Your task to perform on an android device: turn on javascript in the chrome app Image 0: 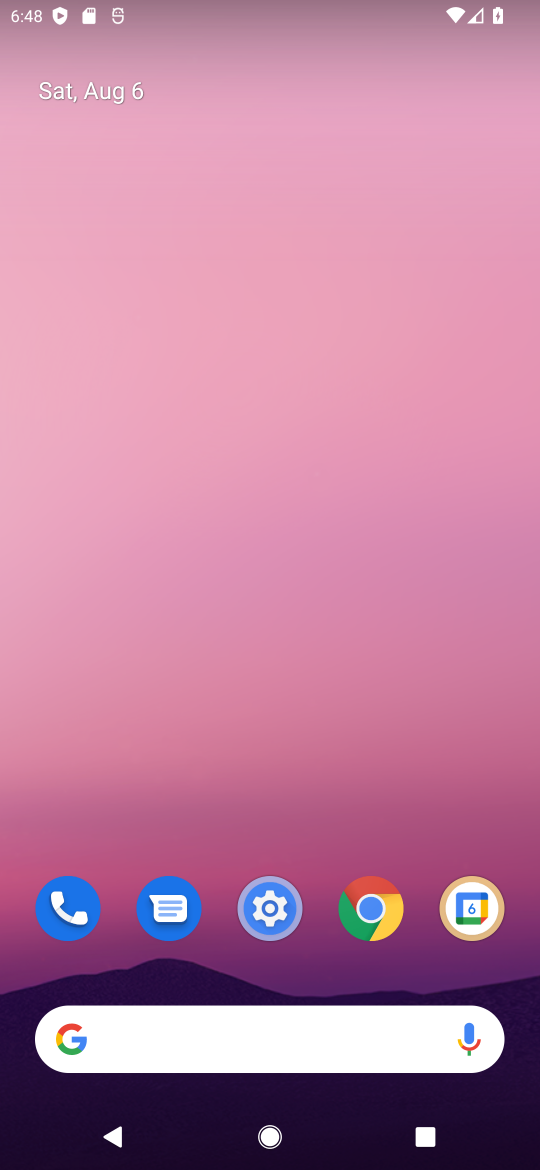
Step 0: click (369, 916)
Your task to perform on an android device: turn on javascript in the chrome app Image 1: 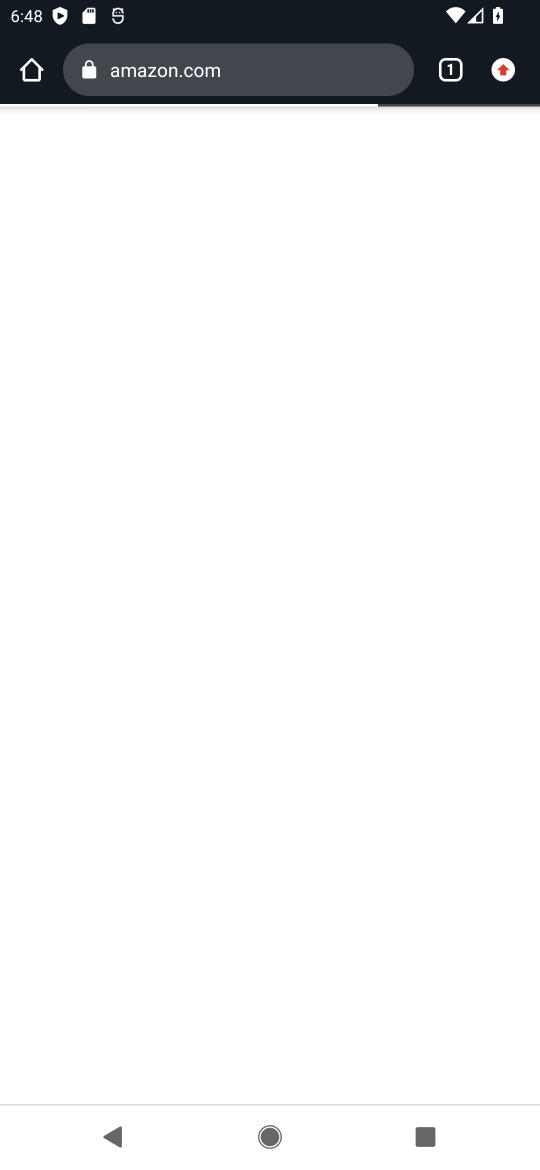
Step 1: click (506, 64)
Your task to perform on an android device: turn on javascript in the chrome app Image 2: 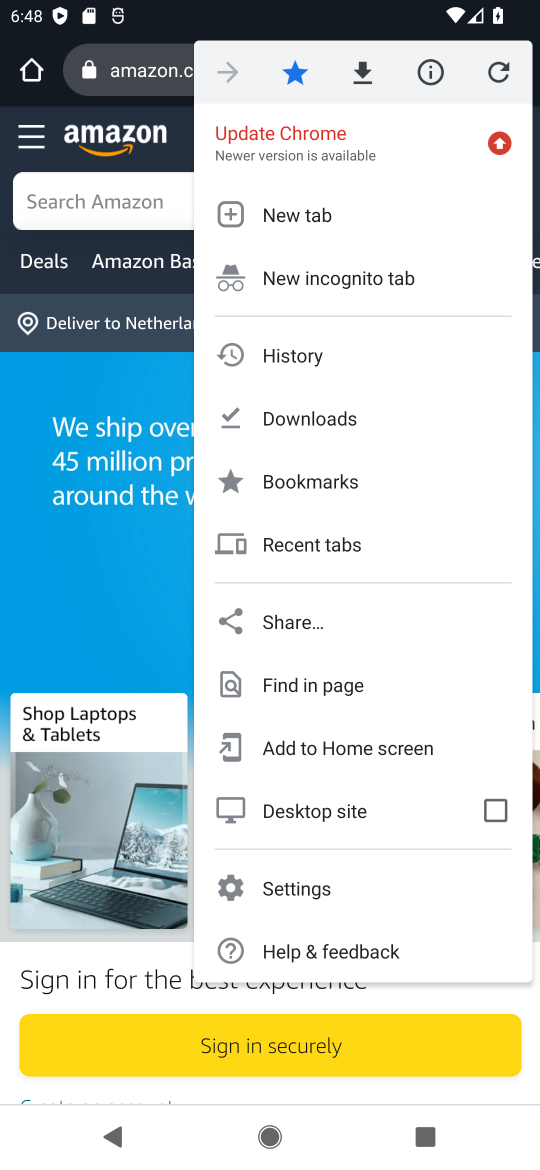
Step 2: click (307, 880)
Your task to perform on an android device: turn on javascript in the chrome app Image 3: 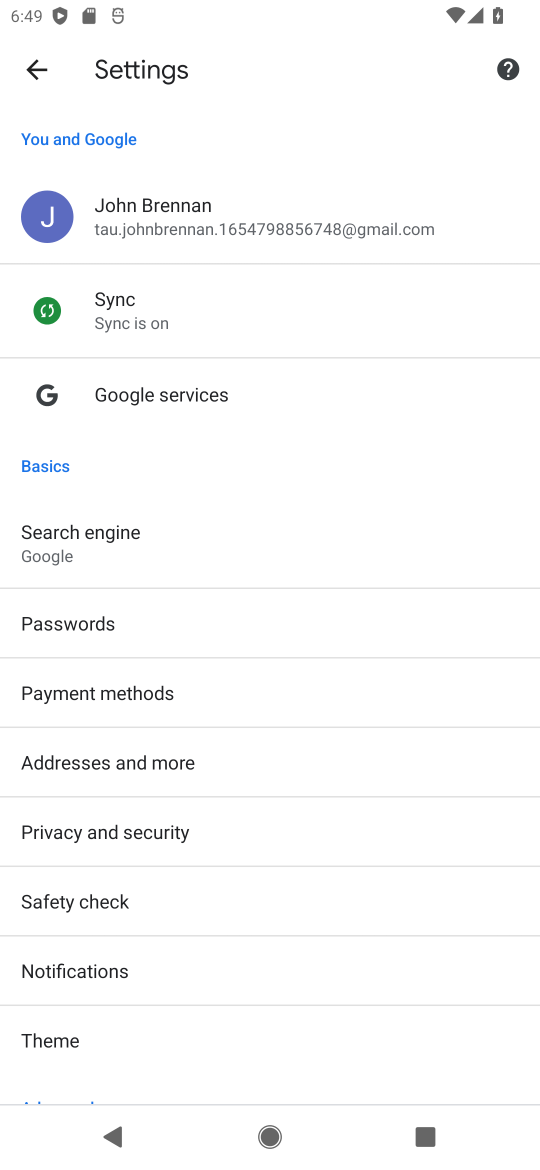
Step 3: drag from (258, 946) to (193, 625)
Your task to perform on an android device: turn on javascript in the chrome app Image 4: 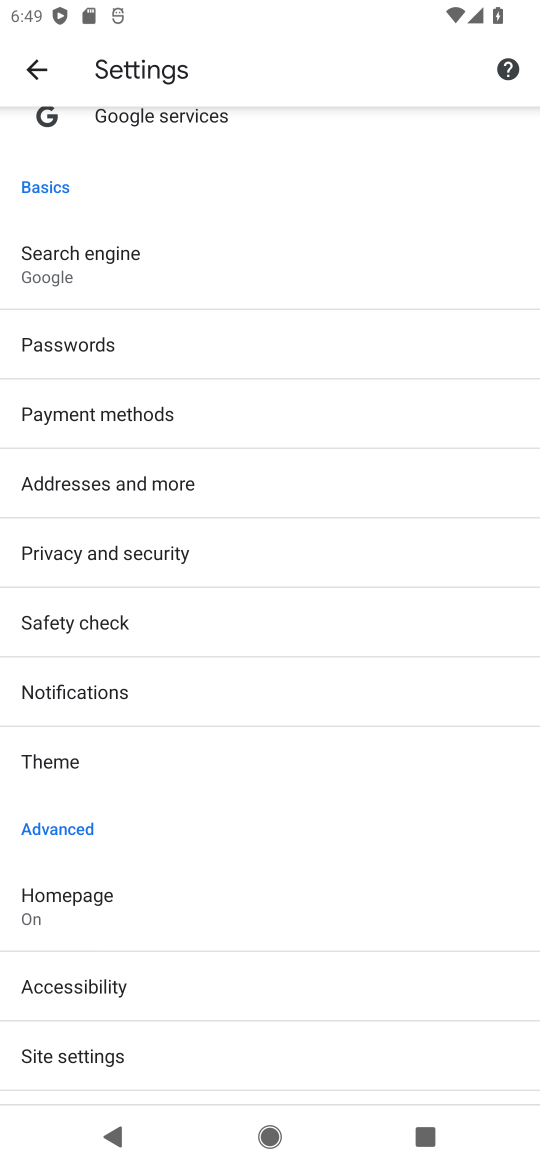
Step 4: drag from (261, 978) to (204, 629)
Your task to perform on an android device: turn on javascript in the chrome app Image 5: 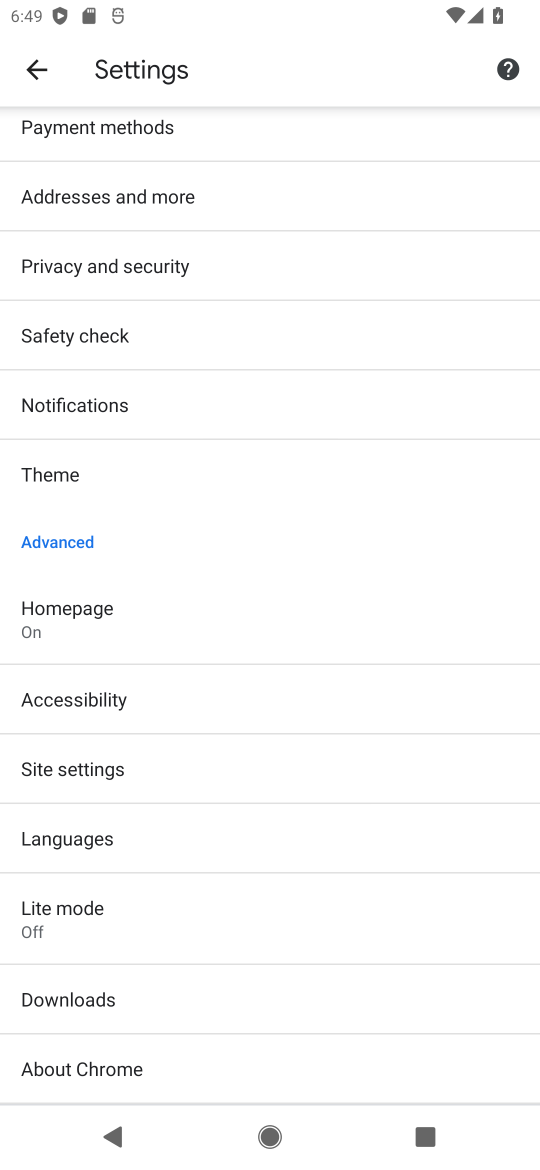
Step 5: click (133, 757)
Your task to perform on an android device: turn on javascript in the chrome app Image 6: 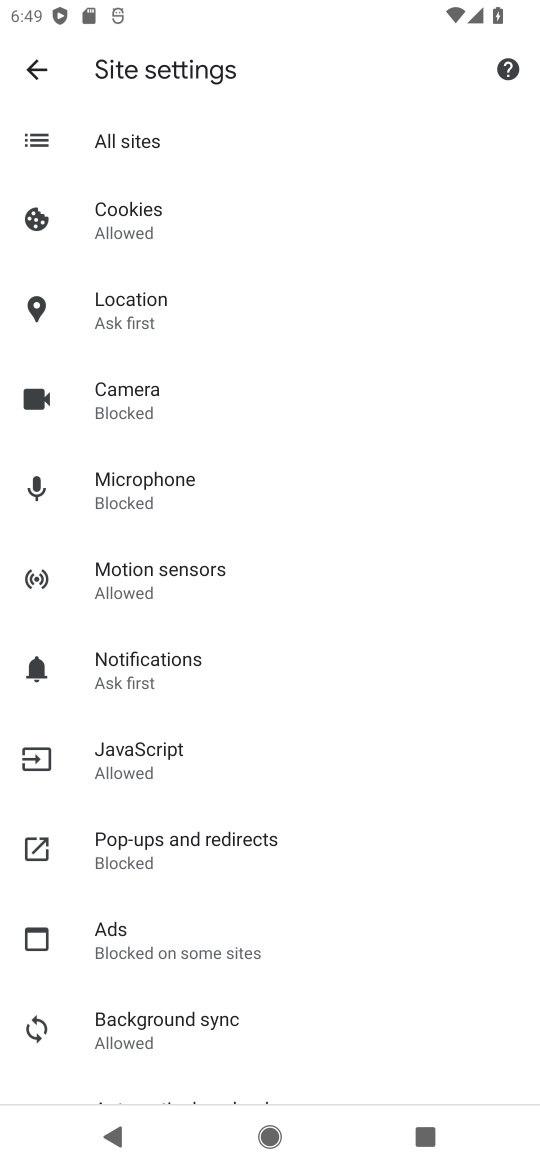
Step 6: click (220, 760)
Your task to perform on an android device: turn on javascript in the chrome app Image 7: 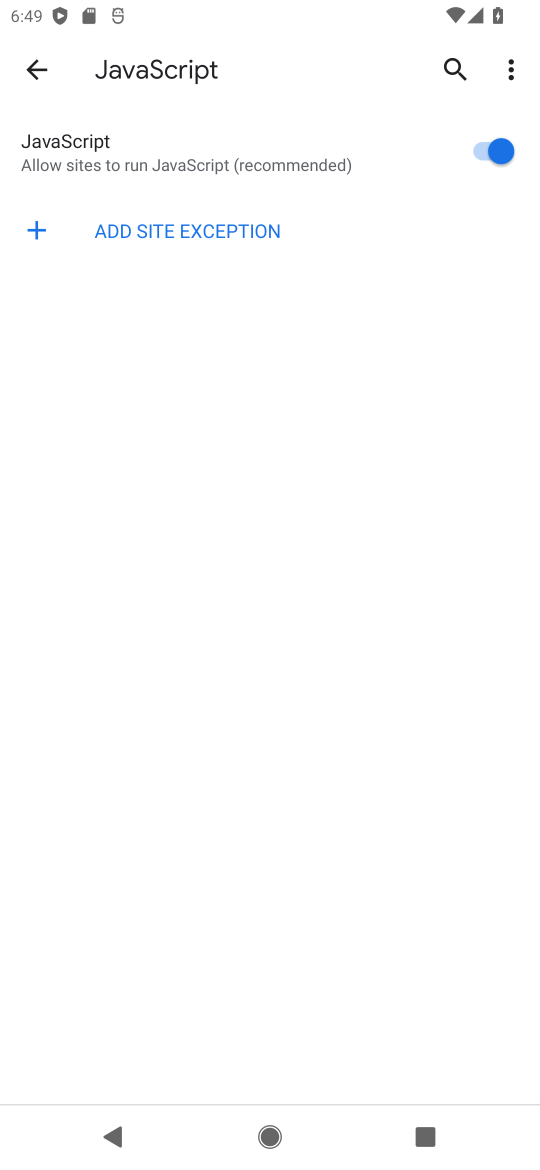
Step 7: task complete